Your task to perform on an android device: turn on sleep mode Image 0: 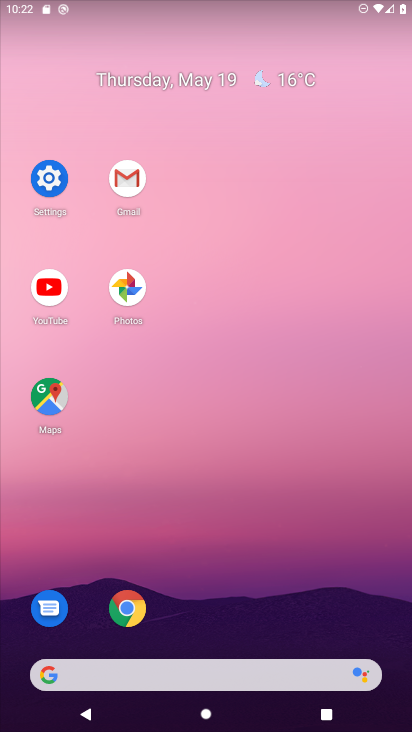
Step 0: click (57, 170)
Your task to perform on an android device: turn on sleep mode Image 1: 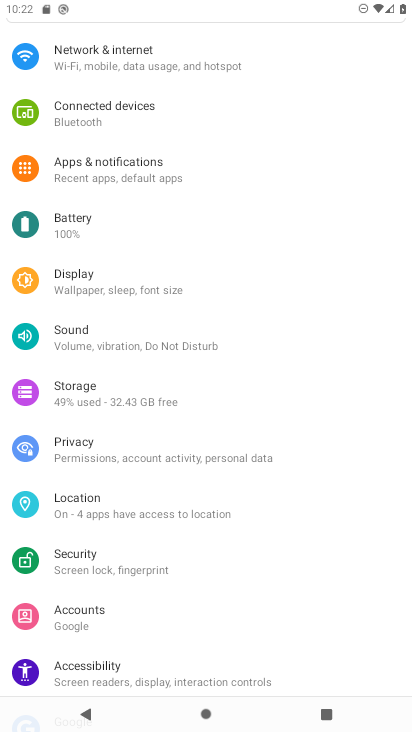
Step 1: click (159, 287)
Your task to perform on an android device: turn on sleep mode Image 2: 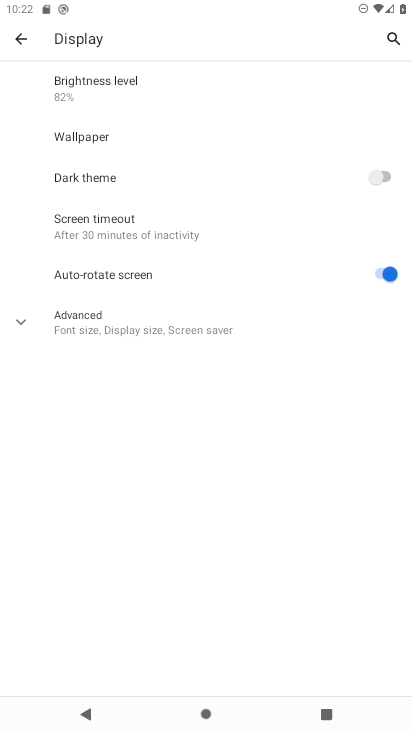
Step 2: click (148, 226)
Your task to perform on an android device: turn on sleep mode Image 3: 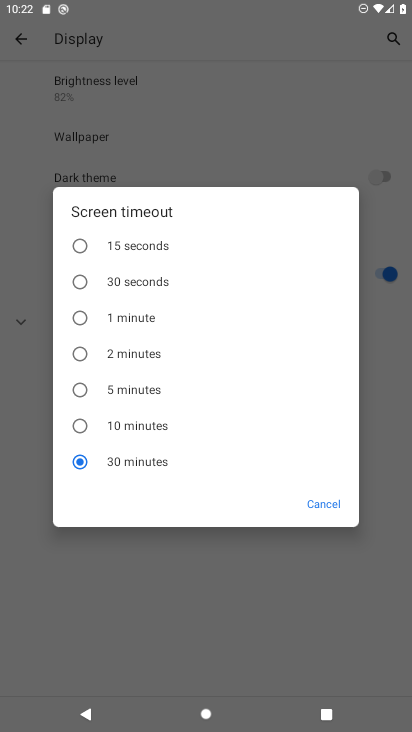
Step 3: task complete